Your task to perform on an android device: Open settings Image 0: 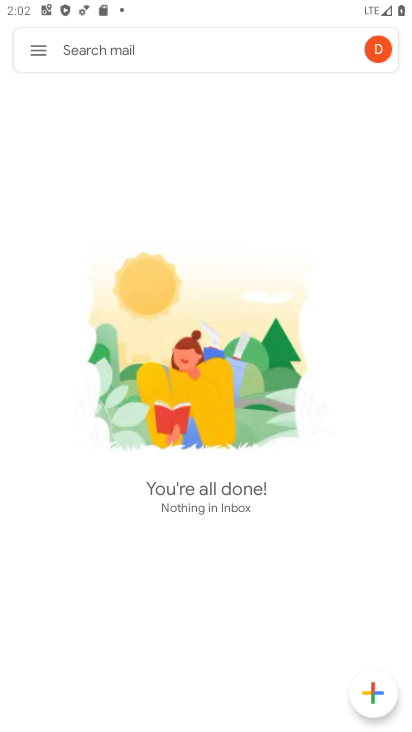
Step 0: press home button
Your task to perform on an android device: Open settings Image 1: 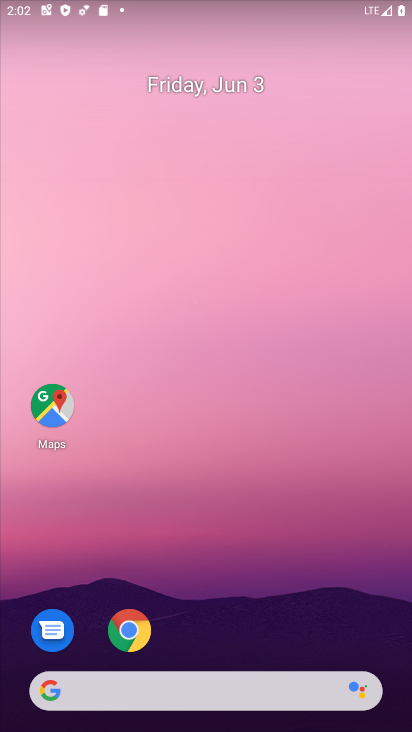
Step 1: drag from (216, 730) to (229, 130)
Your task to perform on an android device: Open settings Image 2: 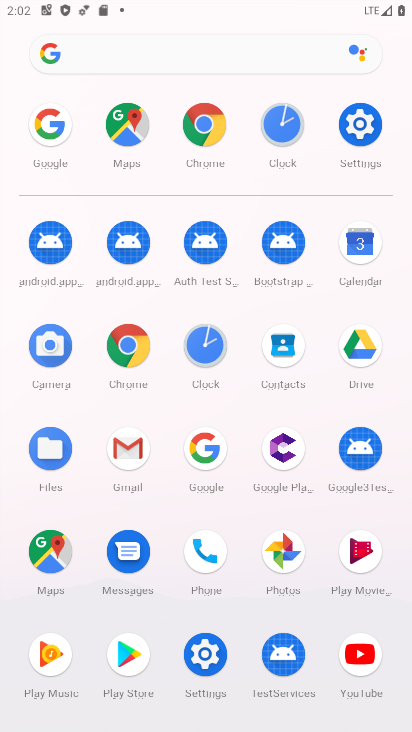
Step 2: click (363, 120)
Your task to perform on an android device: Open settings Image 3: 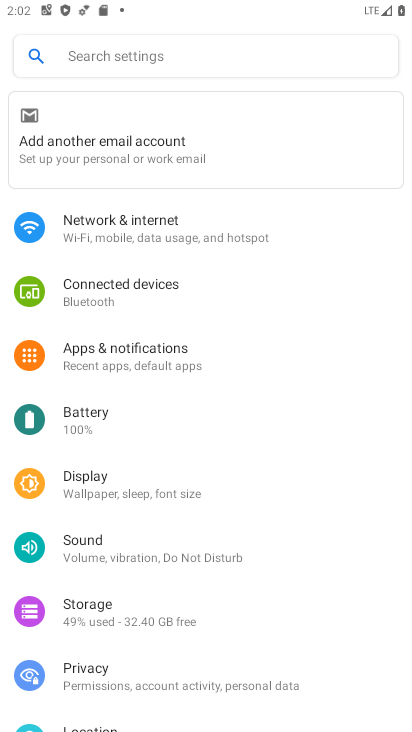
Step 3: task complete